Your task to perform on an android device: Open network settings Image 0: 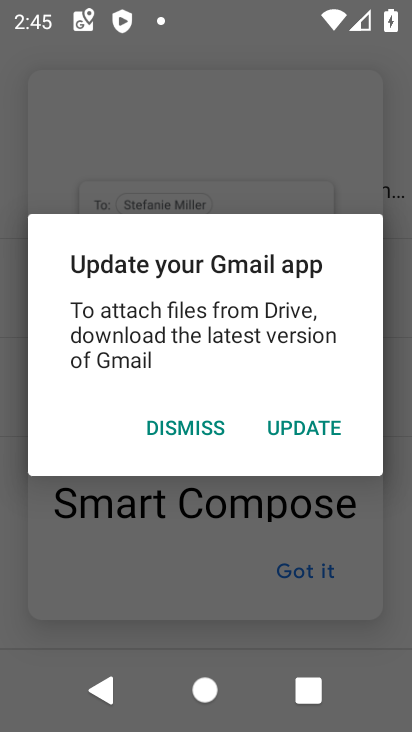
Step 0: press home button
Your task to perform on an android device: Open network settings Image 1: 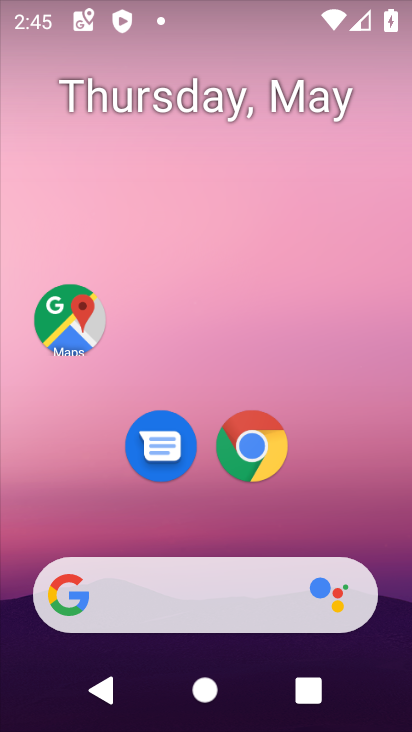
Step 1: drag from (281, 497) to (272, 59)
Your task to perform on an android device: Open network settings Image 2: 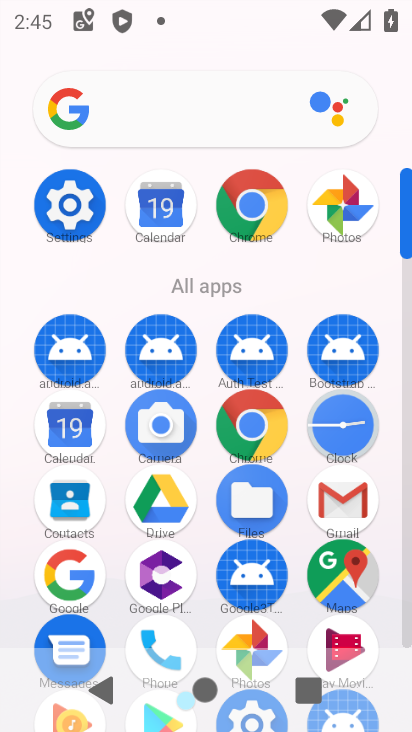
Step 2: click (67, 207)
Your task to perform on an android device: Open network settings Image 3: 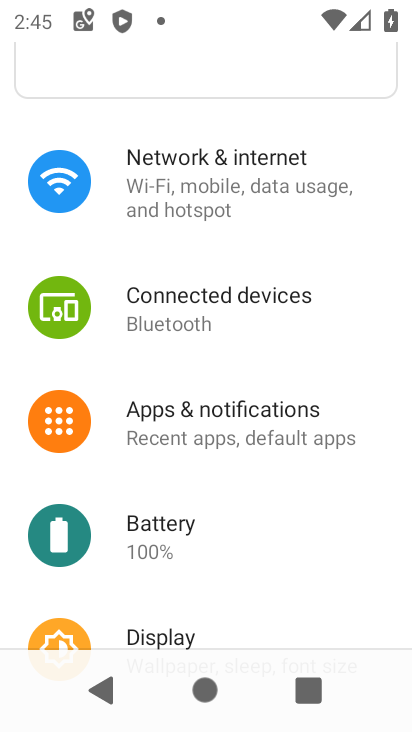
Step 3: click (214, 215)
Your task to perform on an android device: Open network settings Image 4: 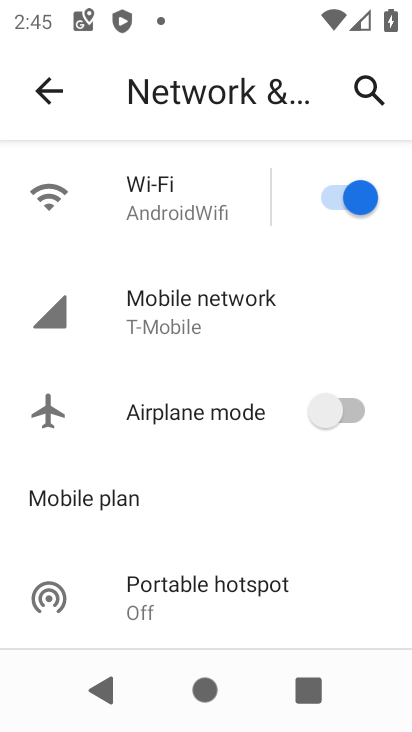
Step 4: click (210, 285)
Your task to perform on an android device: Open network settings Image 5: 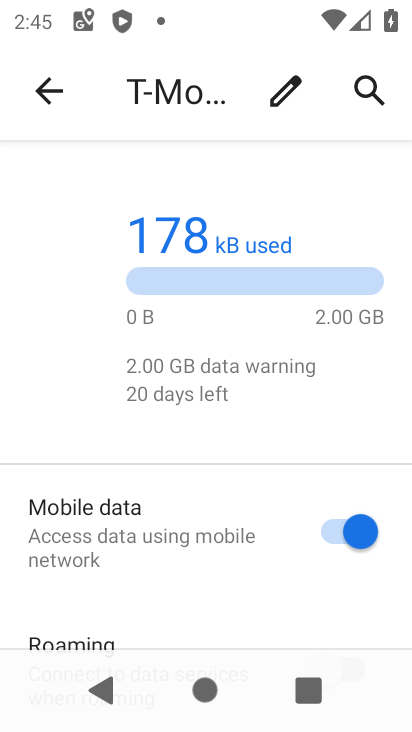
Step 5: task complete